Your task to perform on an android device: Is it going to rain this weekend? Image 0: 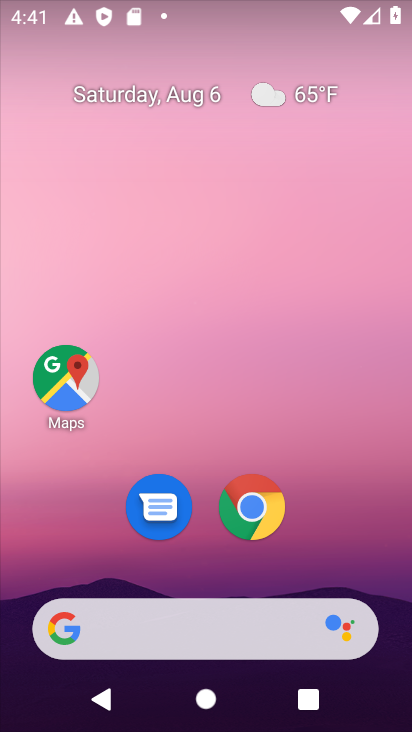
Step 0: drag from (301, 437) to (340, 174)
Your task to perform on an android device: Is it going to rain this weekend? Image 1: 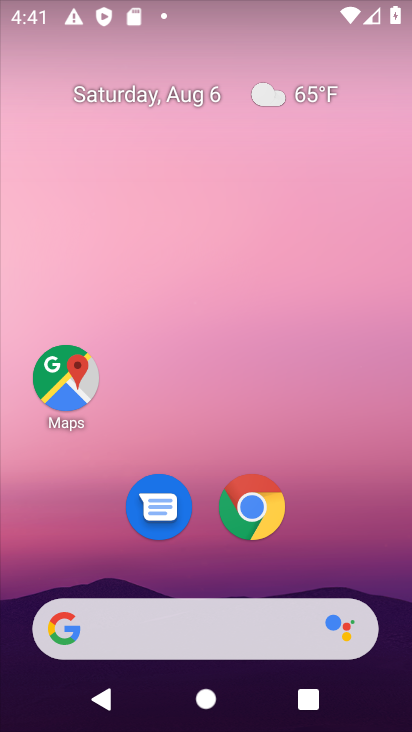
Step 1: drag from (267, 388) to (305, 76)
Your task to perform on an android device: Is it going to rain this weekend? Image 2: 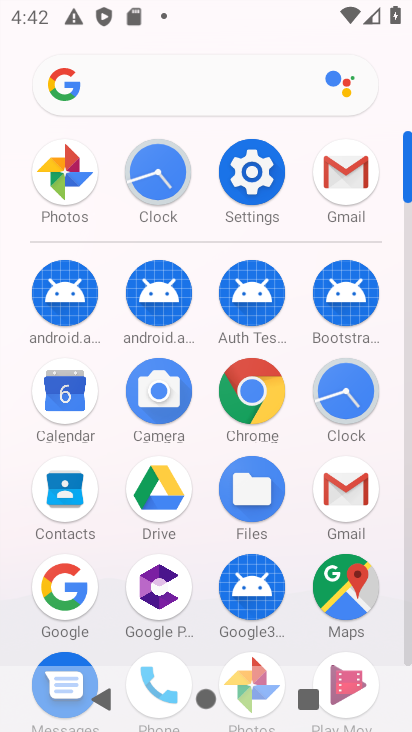
Step 2: drag from (273, 602) to (269, 279)
Your task to perform on an android device: Is it going to rain this weekend? Image 3: 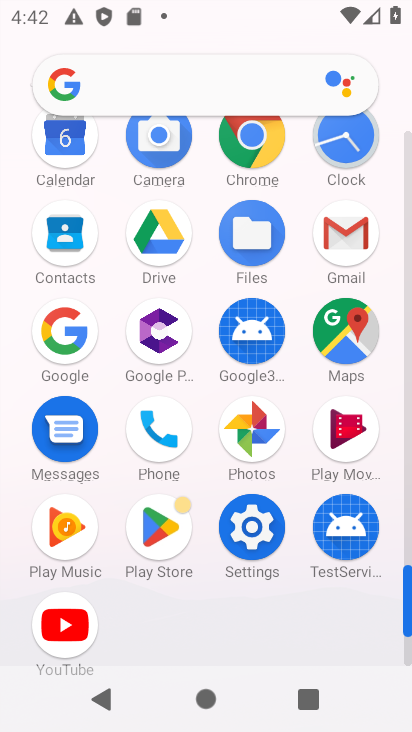
Step 3: drag from (230, 264) to (229, 422)
Your task to perform on an android device: Is it going to rain this weekend? Image 4: 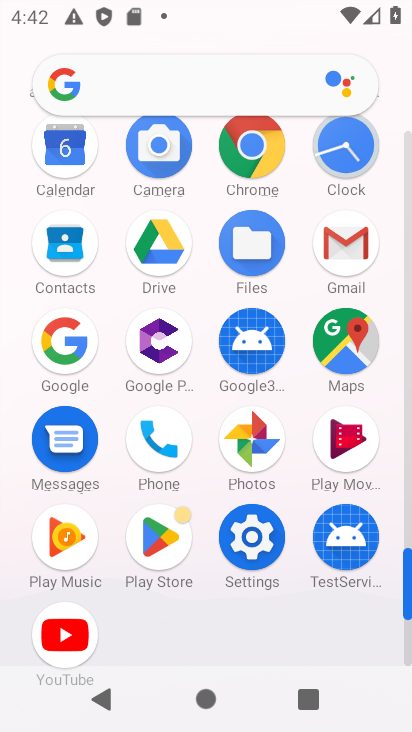
Step 4: click (264, 89)
Your task to perform on an android device: Is it going to rain this weekend? Image 5: 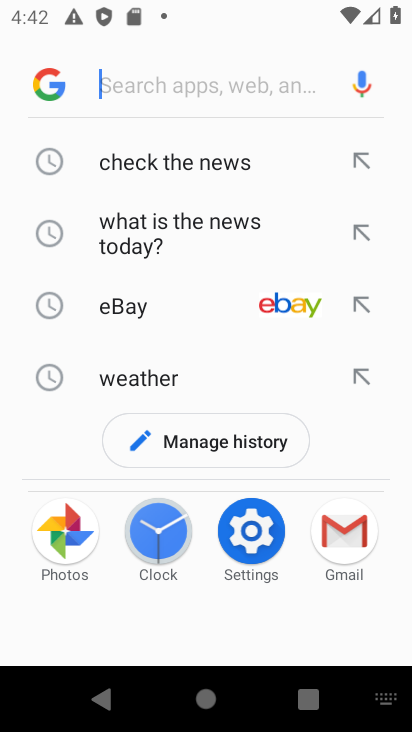
Step 5: type "Is it going to rain this weekend?"
Your task to perform on an android device: Is it going to rain this weekend? Image 6: 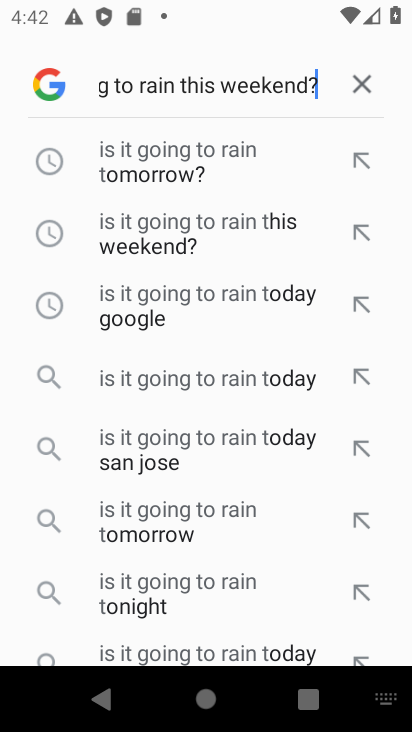
Step 6: press enter
Your task to perform on an android device: Is it going to rain this weekend? Image 7: 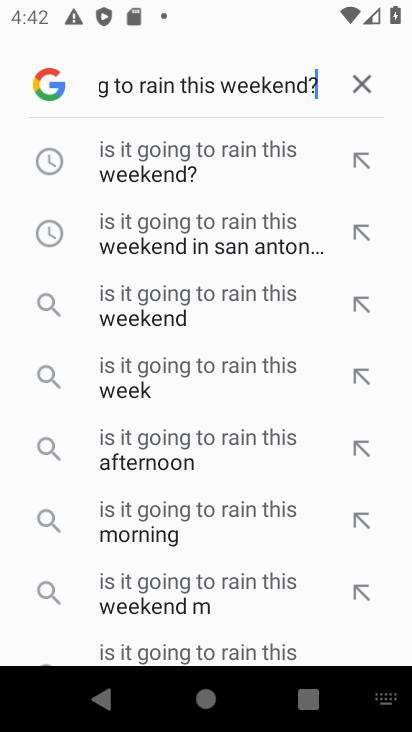
Step 7: type ""
Your task to perform on an android device: Is it going to rain this weekend? Image 8: 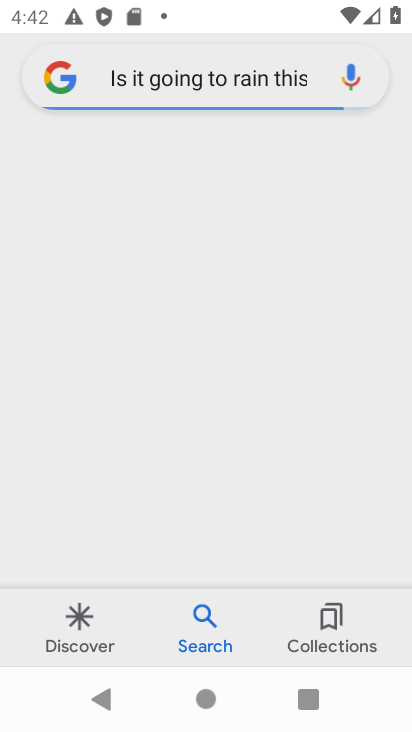
Step 8: press enter
Your task to perform on an android device: Is it going to rain this weekend? Image 9: 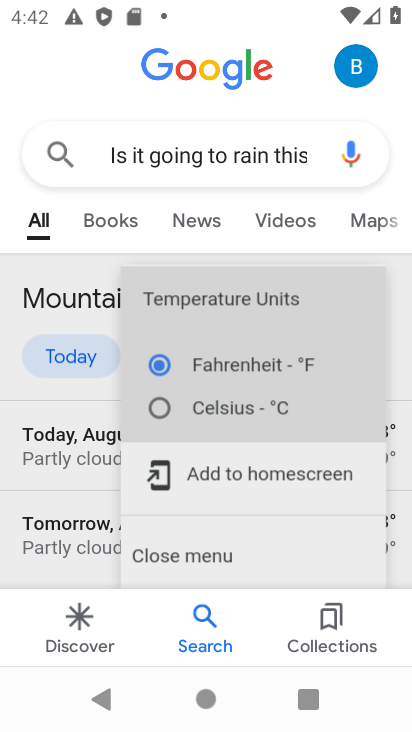
Step 9: task complete